Your task to perform on an android device: turn off location history Image 0: 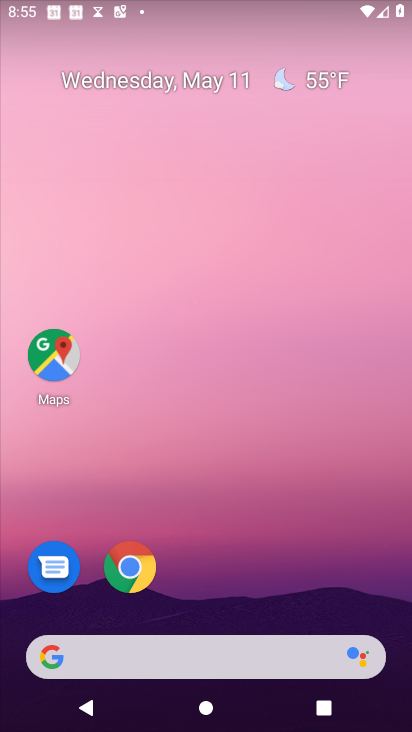
Step 0: drag from (215, 620) to (349, 322)
Your task to perform on an android device: turn off location history Image 1: 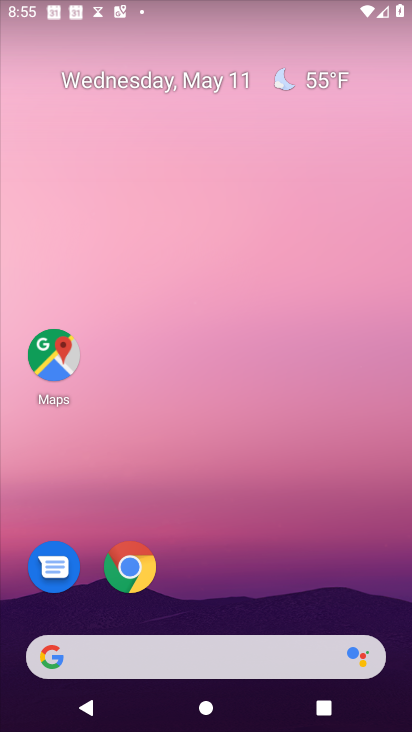
Step 1: drag from (251, 611) to (284, 16)
Your task to perform on an android device: turn off location history Image 2: 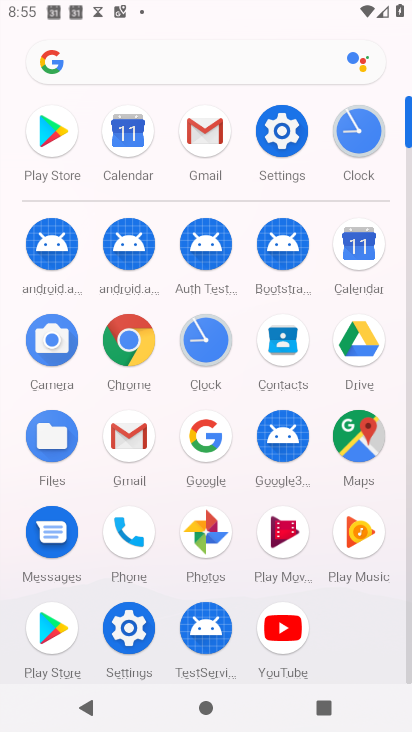
Step 2: click (127, 631)
Your task to perform on an android device: turn off location history Image 3: 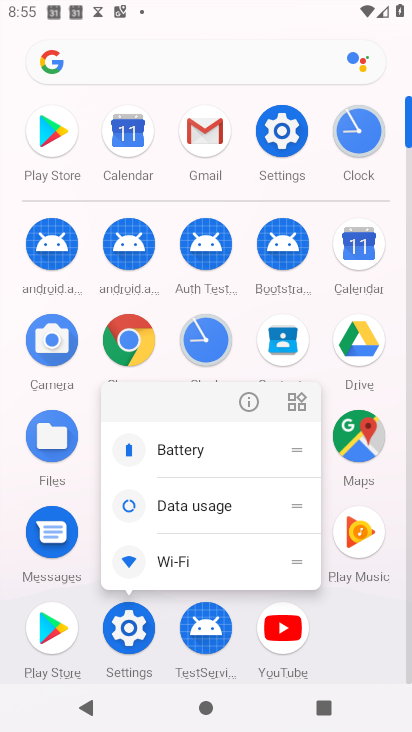
Step 3: click (125, 630)
Your task to perform on an android device: turn off location history Image 4: 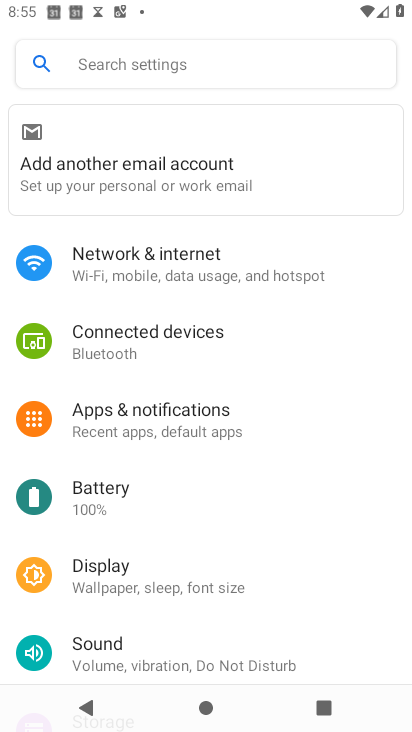
Step 4: drag from (169, 577) to (234, 160)
Your task to perform on an android device: turn off location history Image 5: 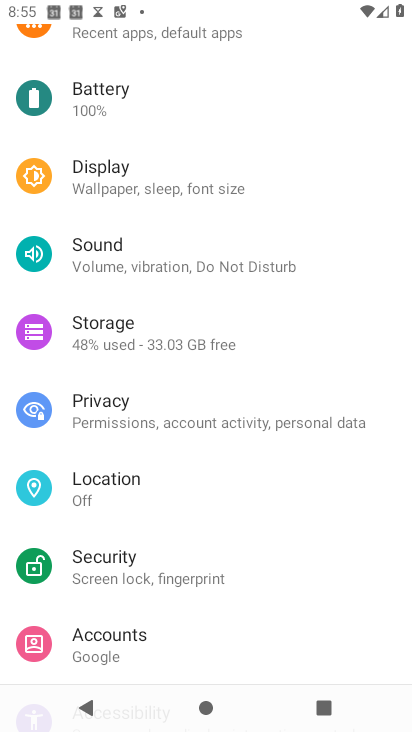
Step 5: click (103, 507)
Your task to perform on an android device: turn off location history Image 6: 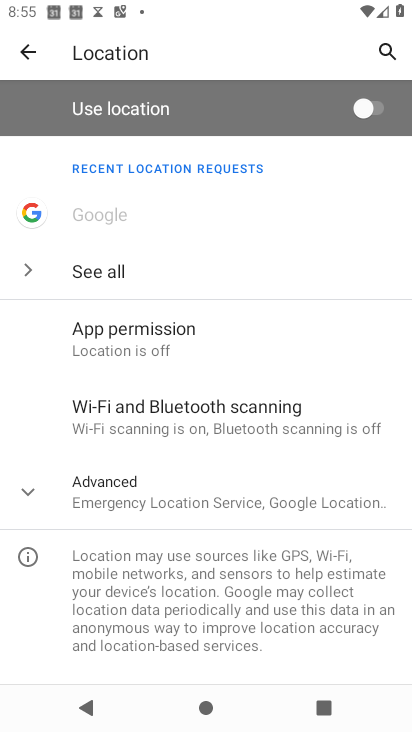
Step 6: click (151, 495)
Your task to perform on an android device: turn off location history Image 7: 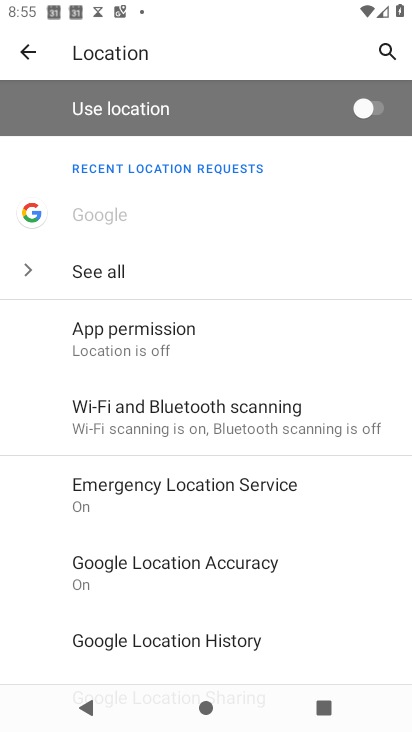
Step 7: click (159, 642)
Your task to perform on an android device: turn off location history Image 8: 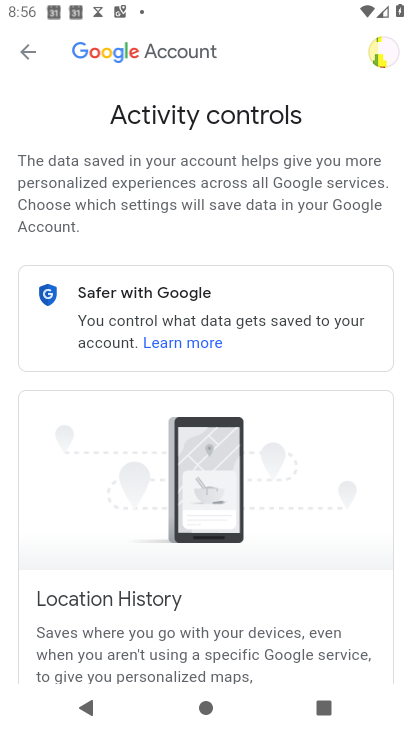
Step 8: task complete